Your task to perform on an android device: Show me the alarms in the clock app Image 0: 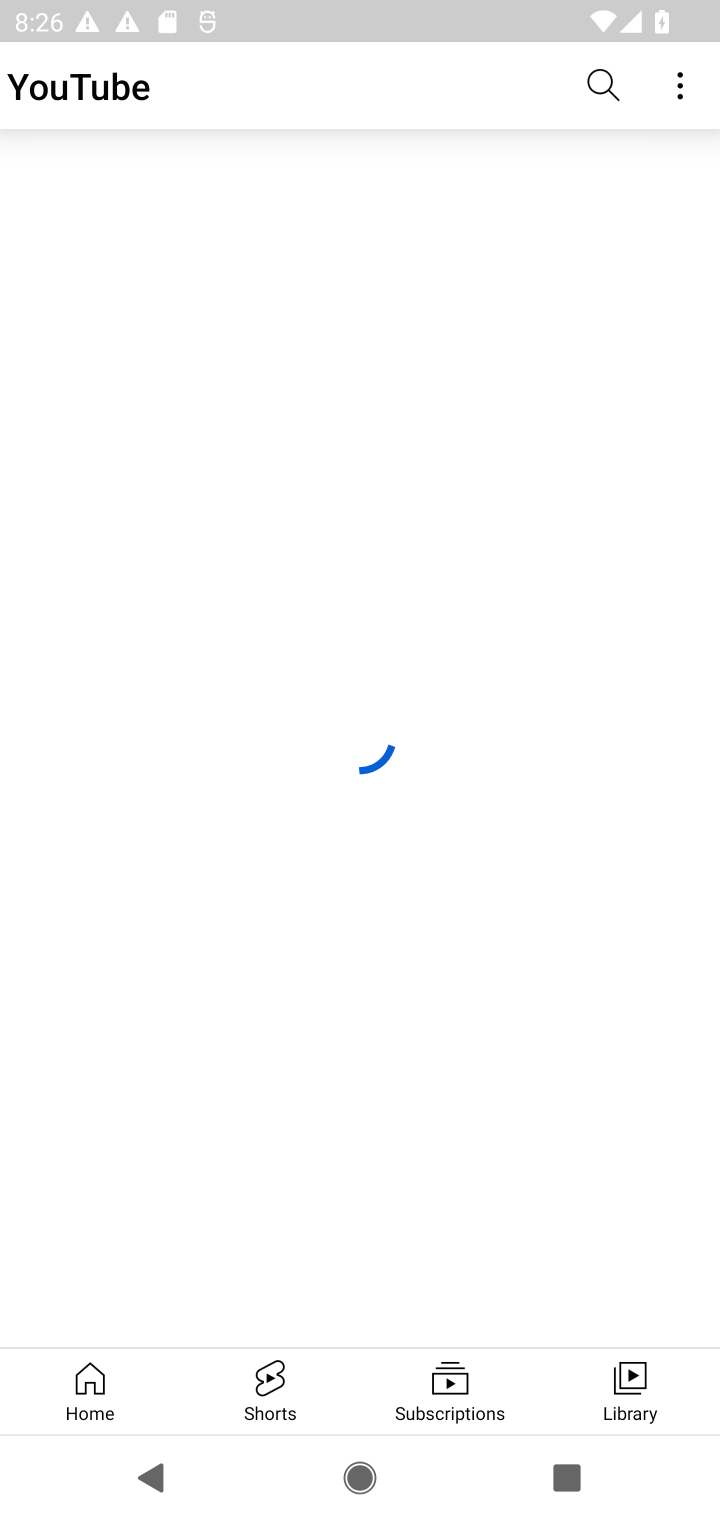
Step 0: press home button
Your task to perform on an android device: Show me the alarms in the clock app Image 1: 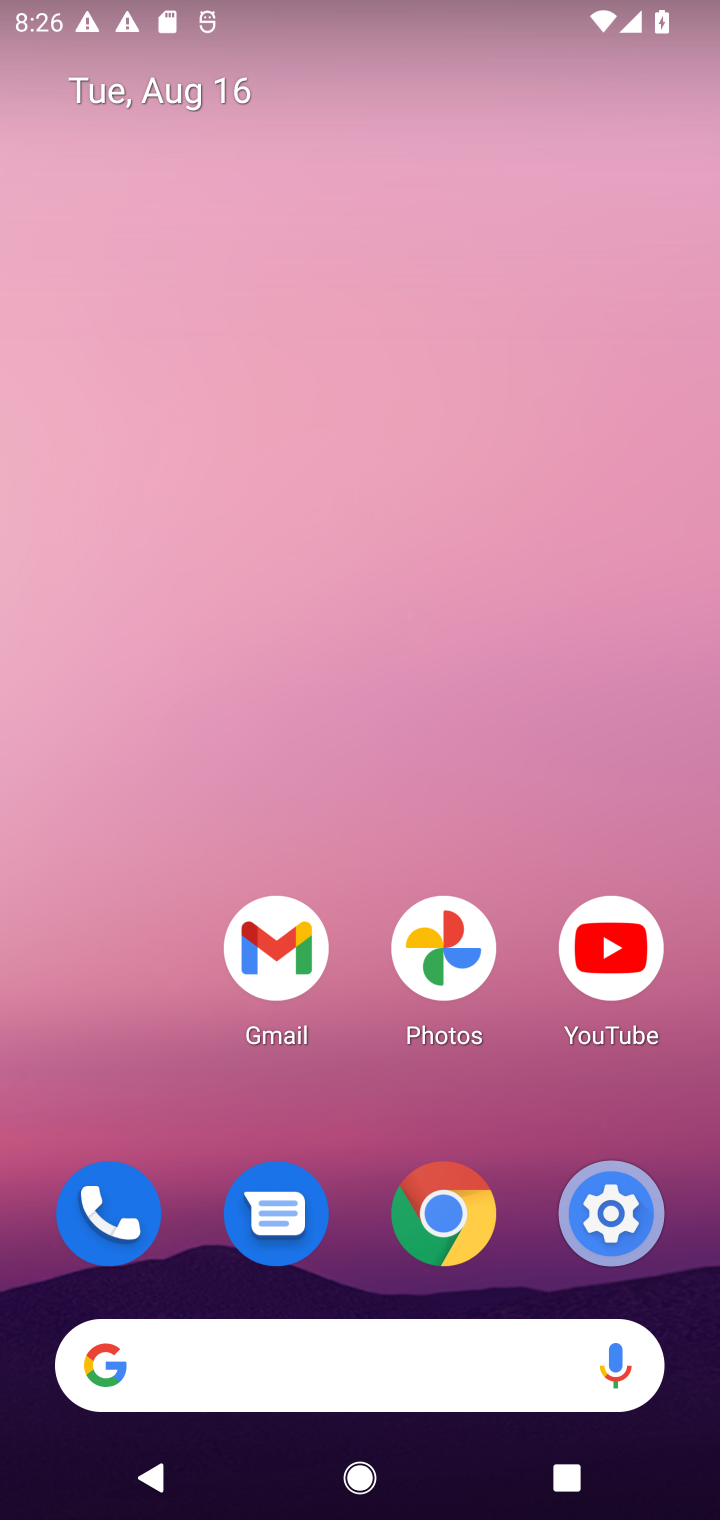
Step 1: drag from (265, 1291) to (366, 216)
Your task to perform on an android device: Show me the alarms in the clock app Image 2: 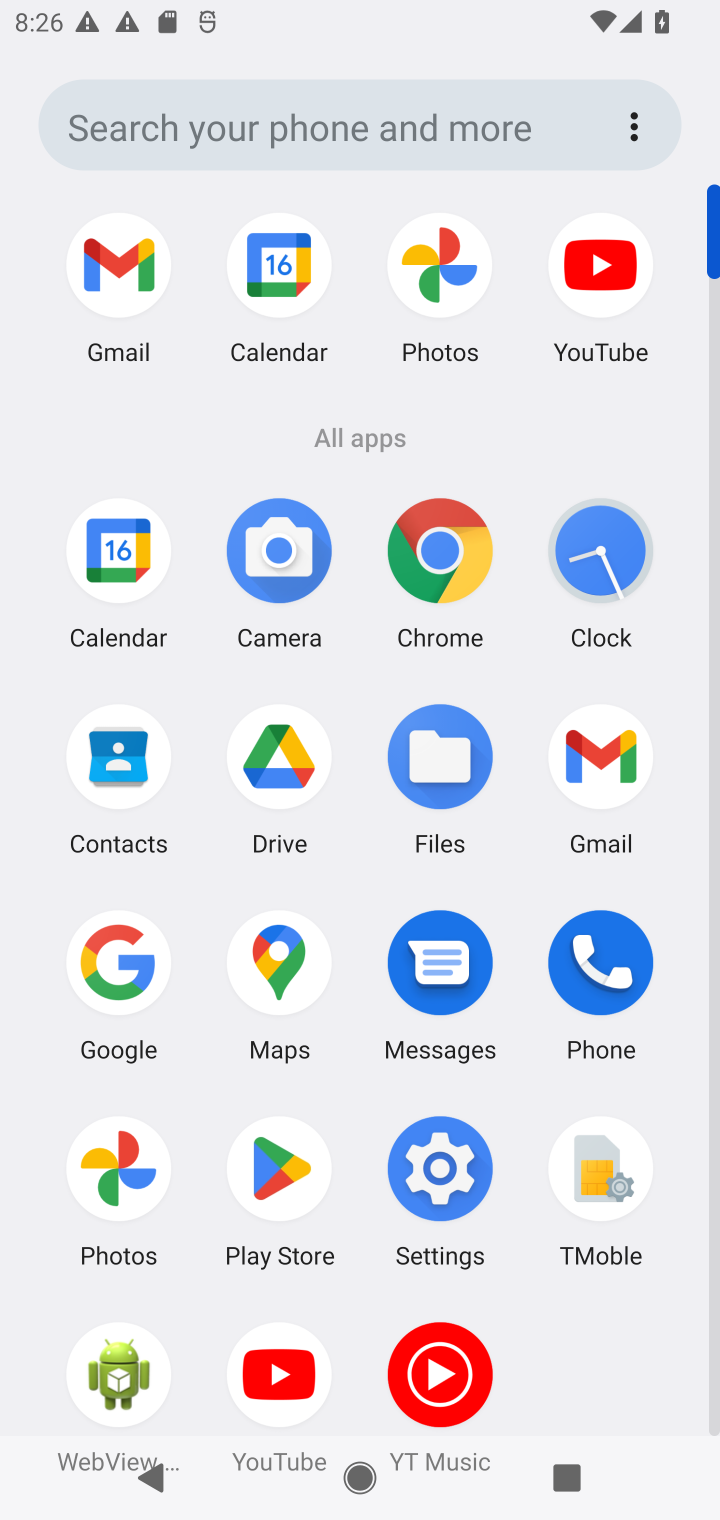
Step 2: click (616, 531)
Your task to perform on an android device: Show me the alarms in the clock app Image 3: 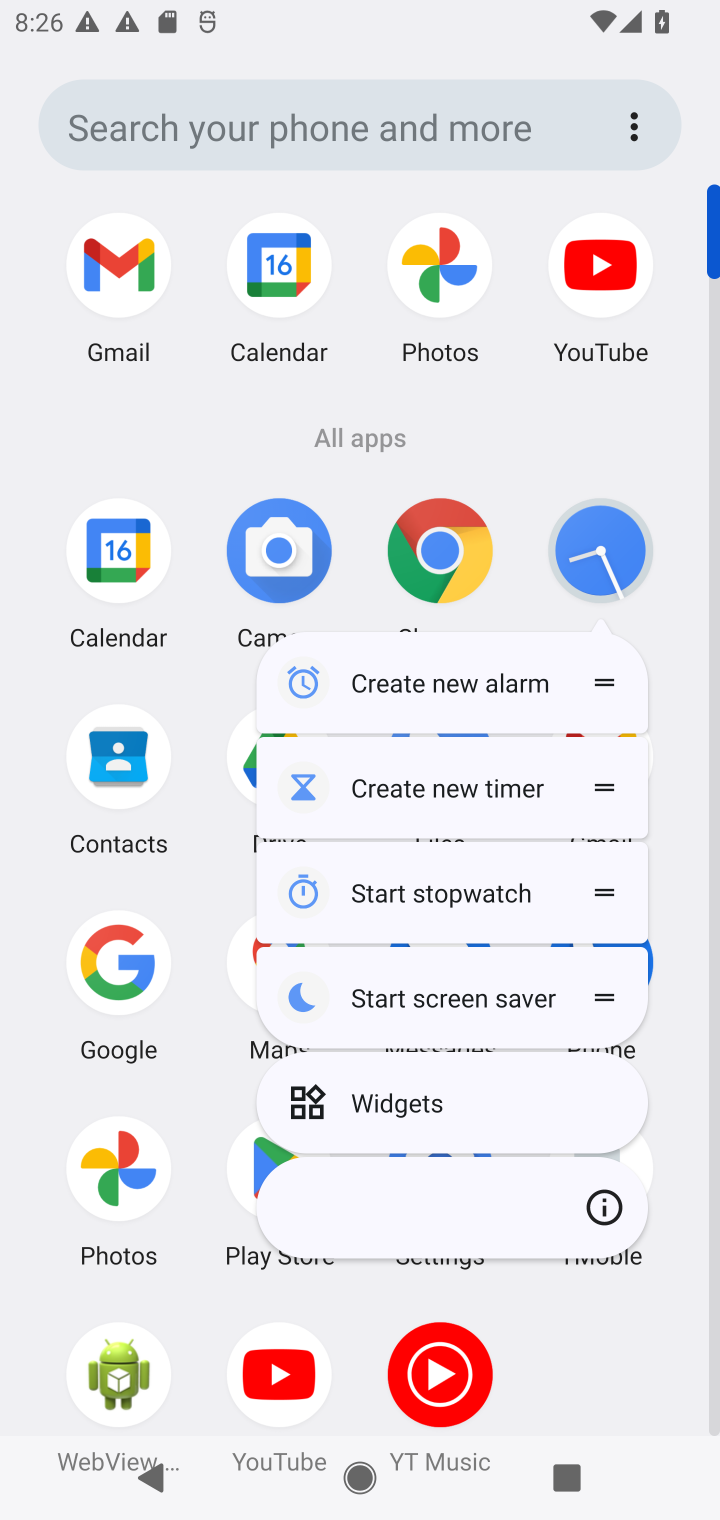
Step 3: click (616, 531)
Your task to perform on an android device: Show me the alarms in the clock app Image 4: 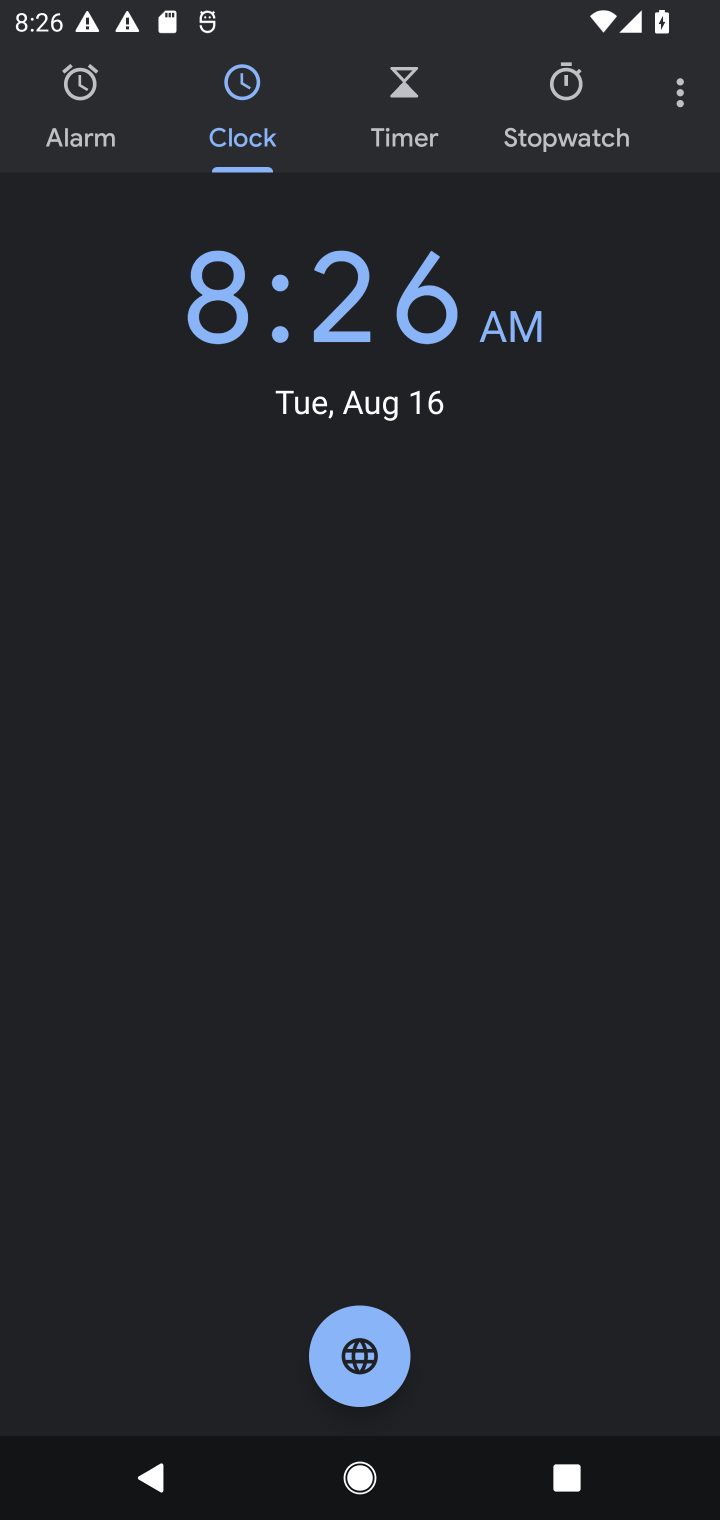
Step 4: click (71, 99)
Your task to perform on an android device: Show me the alarms in the clock app Image 5: 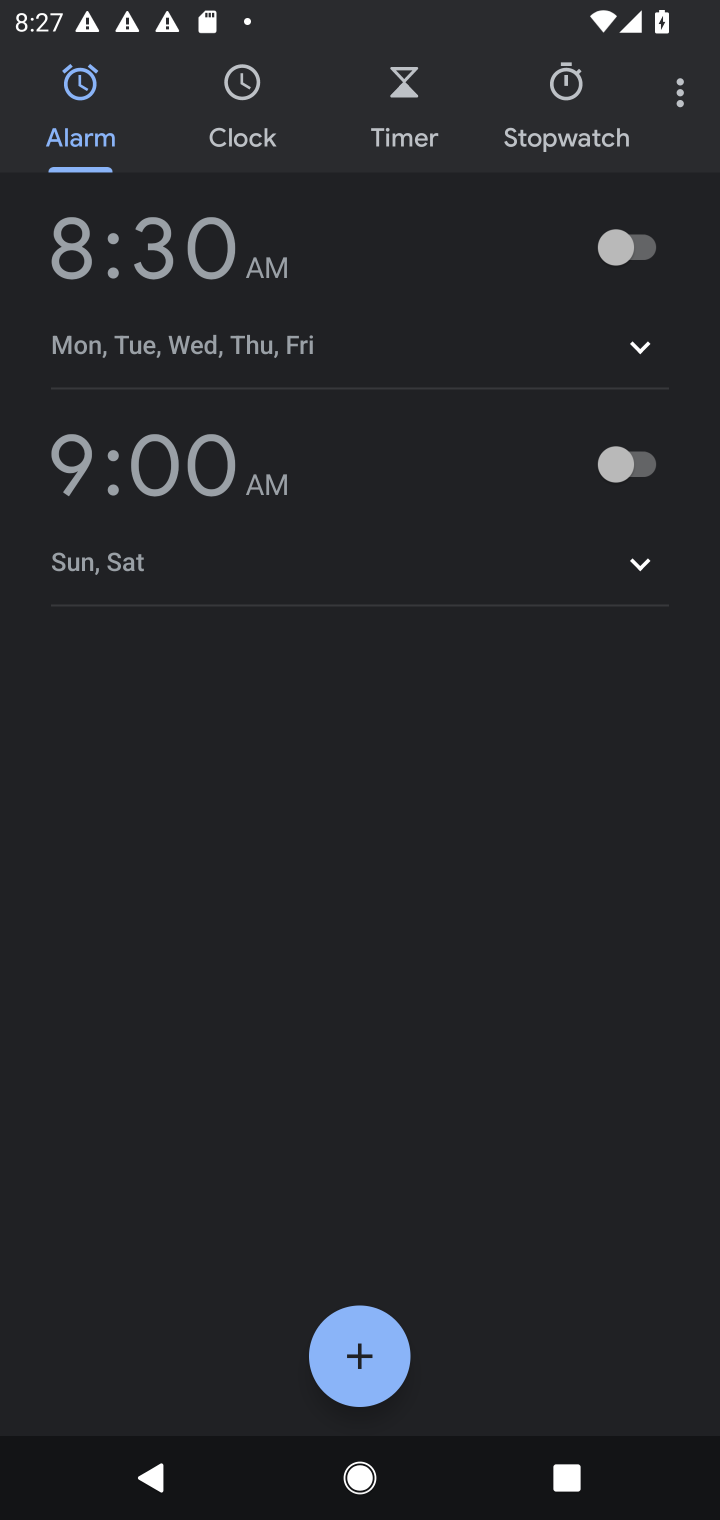
Step 5: click (634, 243)
Your task to perform on an android device: Show me the alarms in the clock app Image 6: 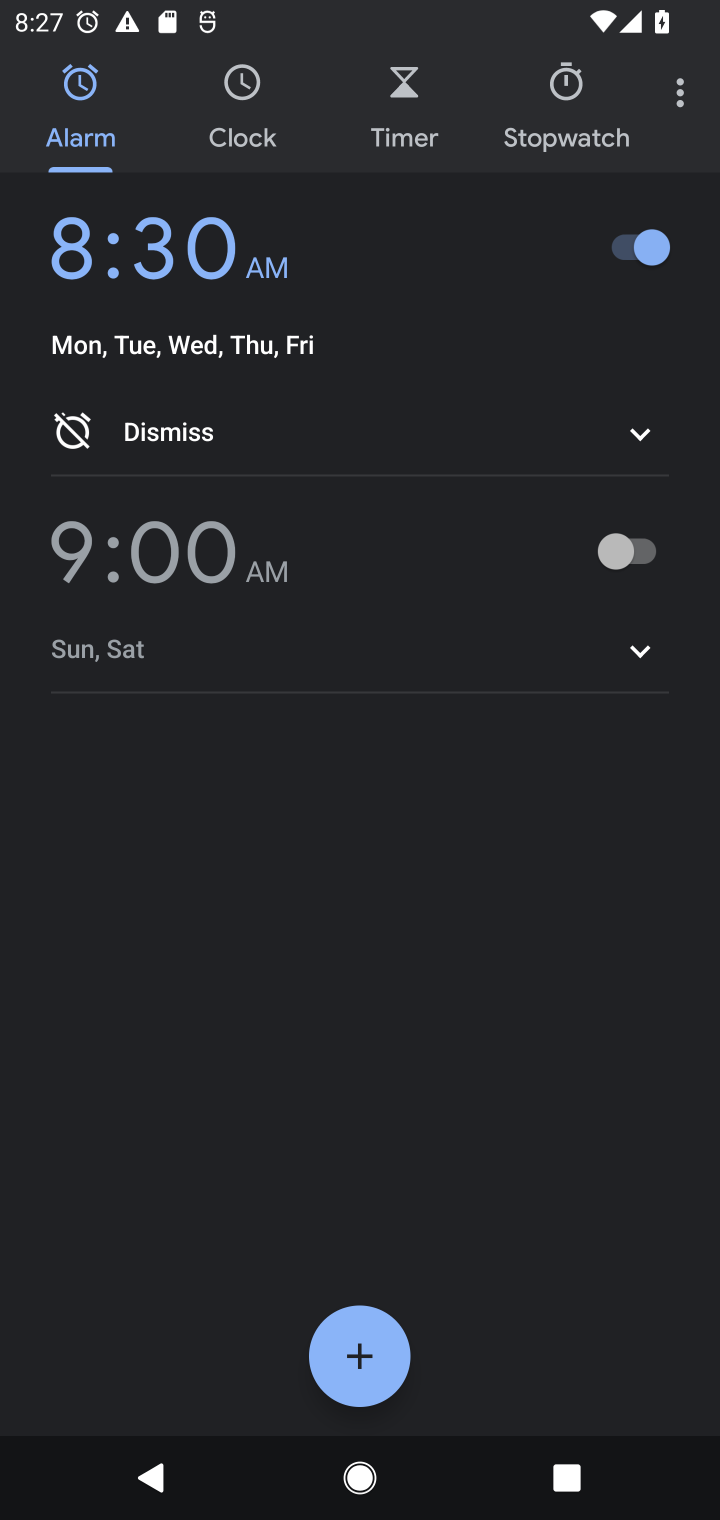
Step 6: task complete